Your task to perform on an android device: see tabs open on other devices in the chrome app Image 0: 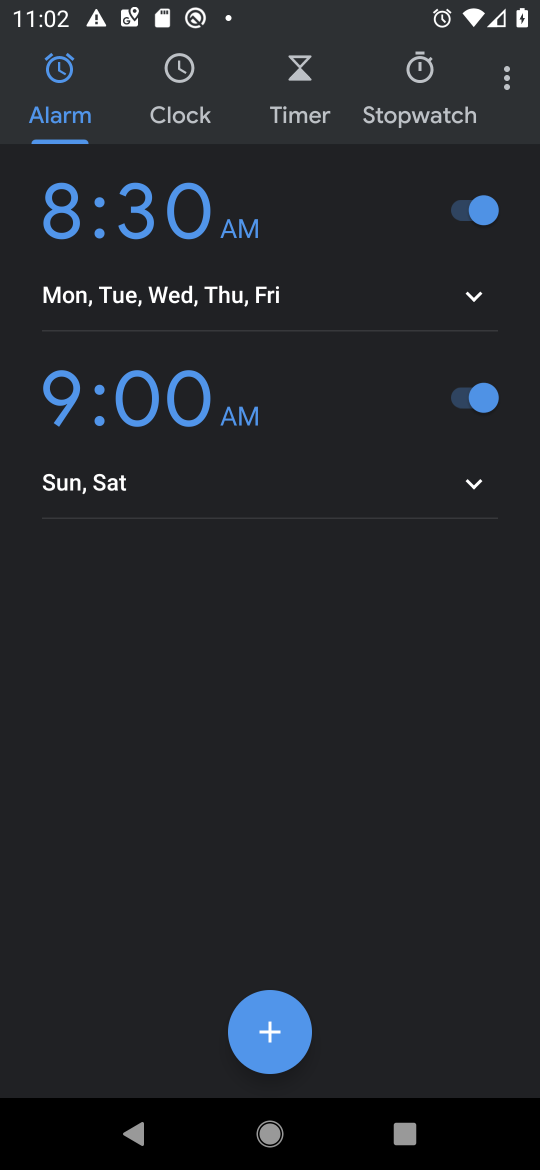
Step 0: press home button
Your task to perform on an android device: see tabs open on other devices in the chrome app Image 1: 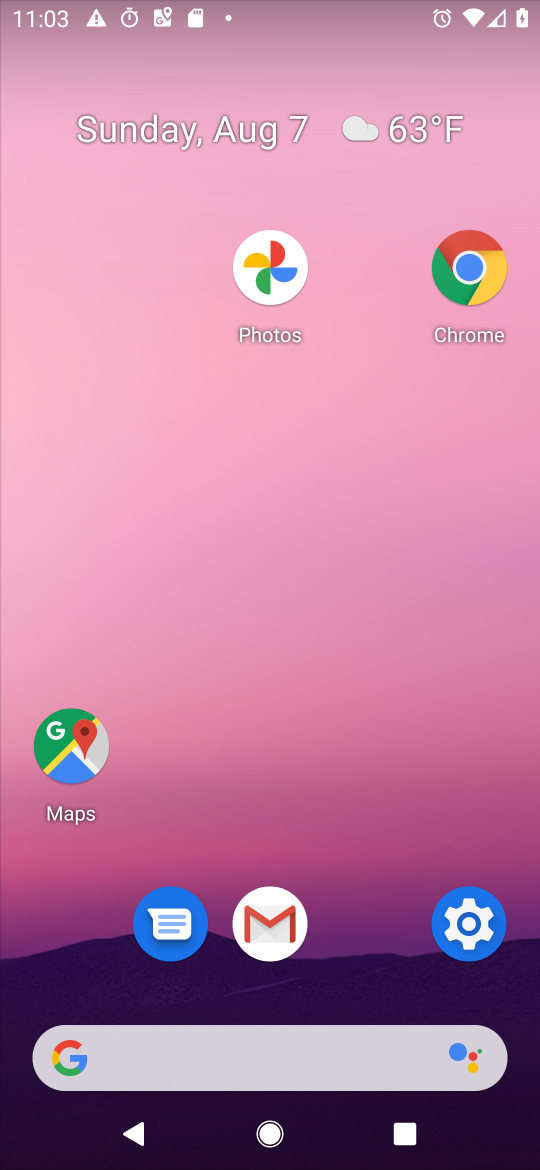
Step 1: click (439, 251)
Your task to perform on an android device: see tabs open on other devices in the chrome app Image 2: 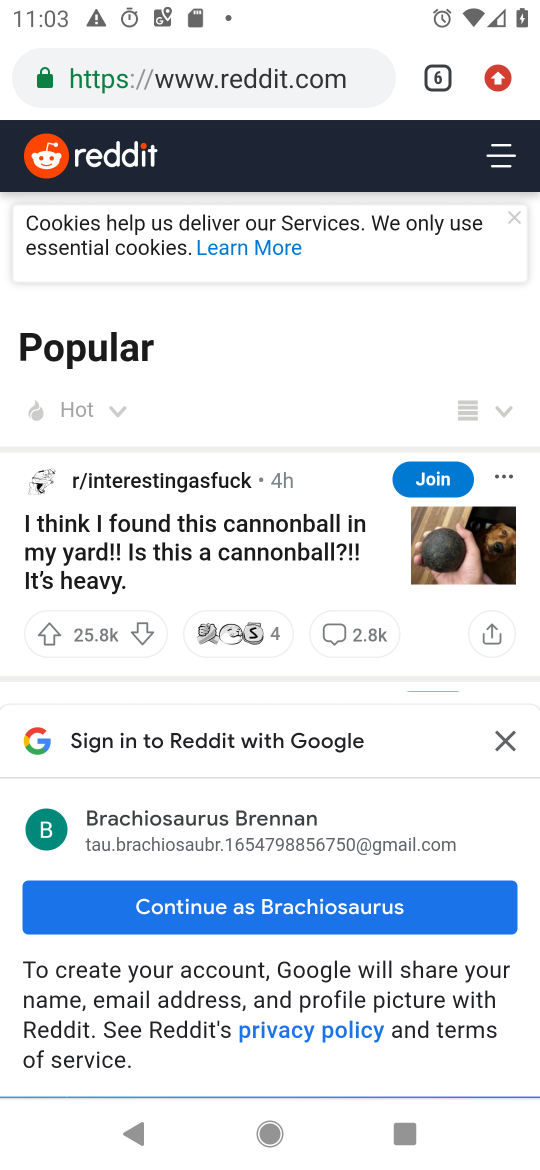
Step 2: click (444, 71)
Your task to perform on an android device: see tabs open on other devices in the chrome app Image 3: 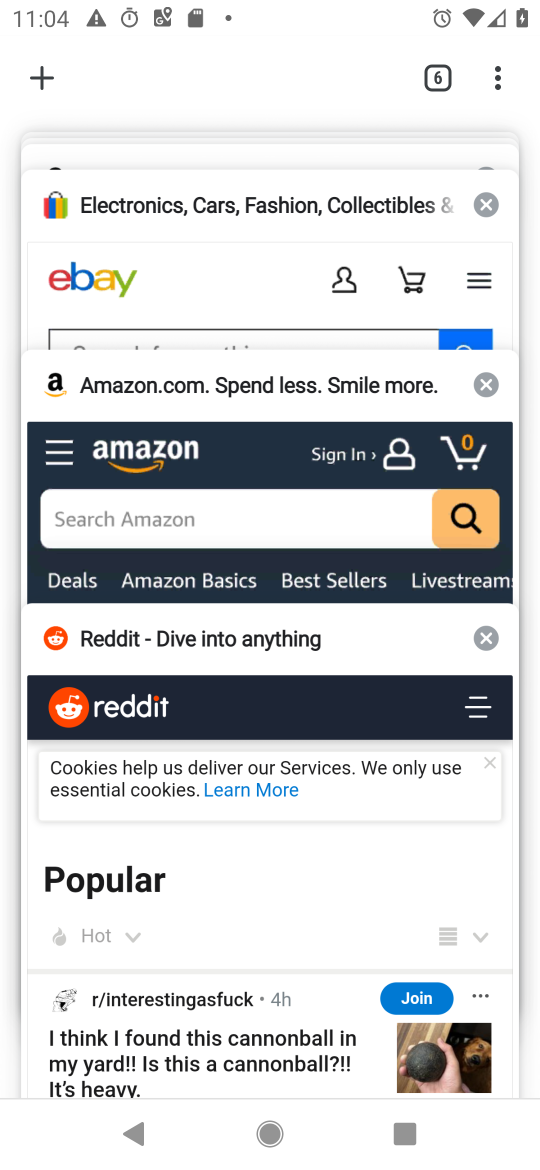
Step 3: click (38, 77)
Your task to perform on an android device: see tabs open on other devices in the chrome app Image 4: 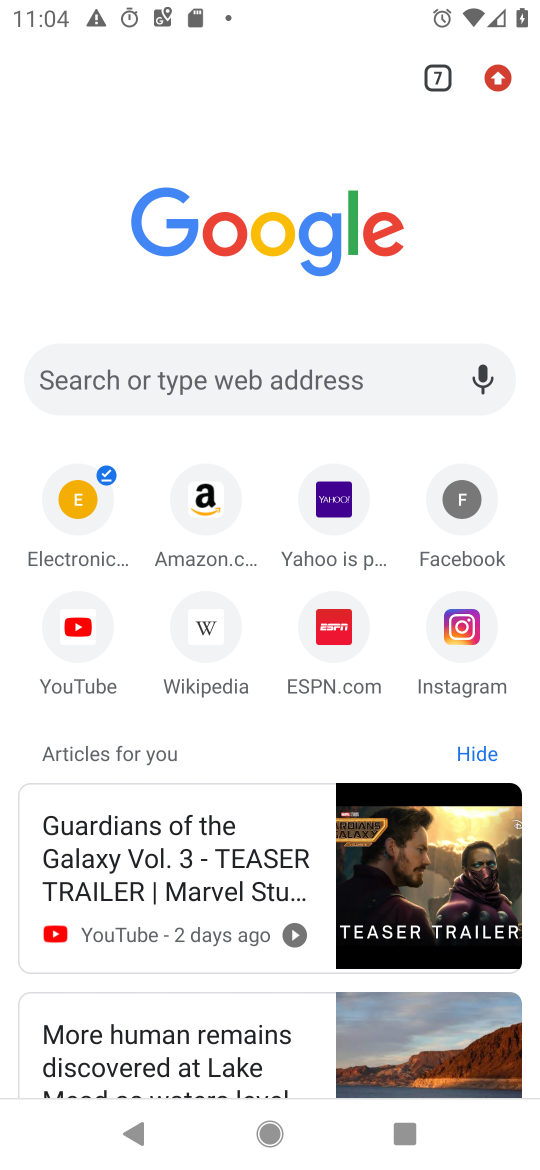
Step 4: task complete